Your task to perform on an android device: turn smart compose on in the gmail app Image 0: 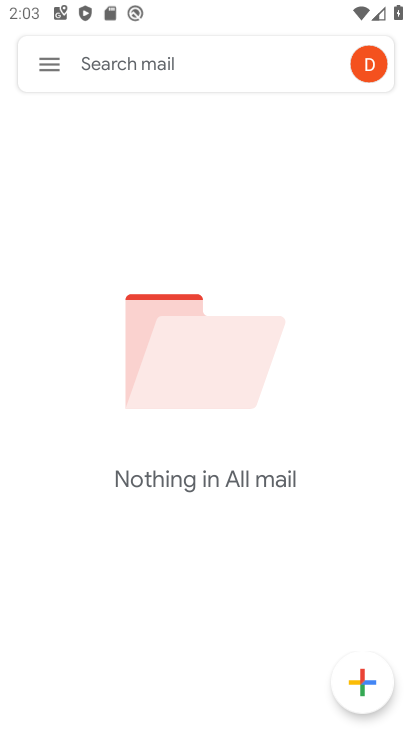
Step 0: press home button
Your task to perform on an android device: turn smart compose on in the gmail app Image 1: 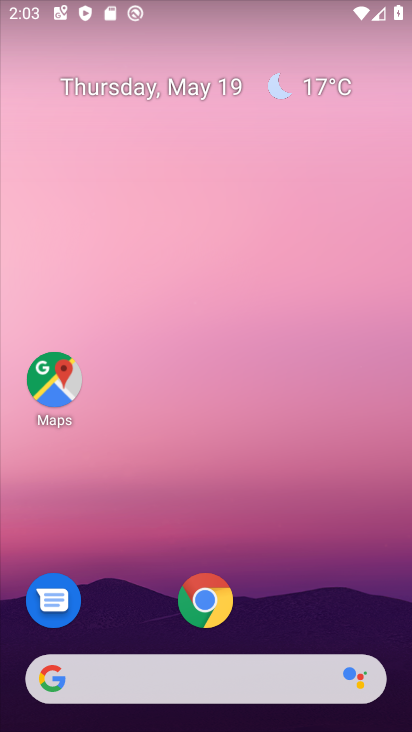
Step 1: drag from (328, 622) to (295, 202)
Your task to perform on an android device: turn smart compose on in the gmail app Image 2: 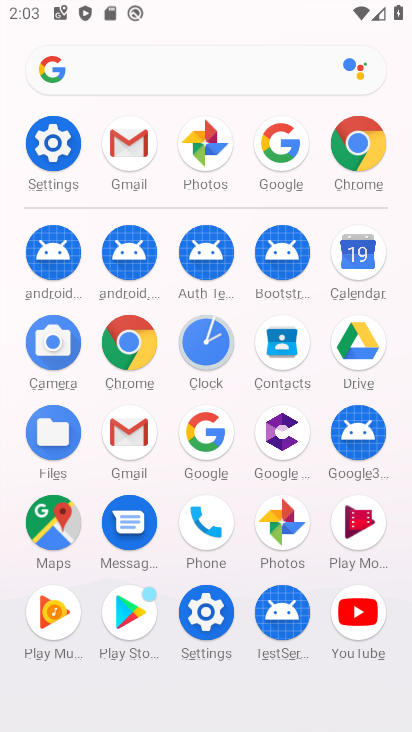
Step 2: click (136, 438)
Your task to perform on an android device: turn smart compose on in the gmail app Image 3: 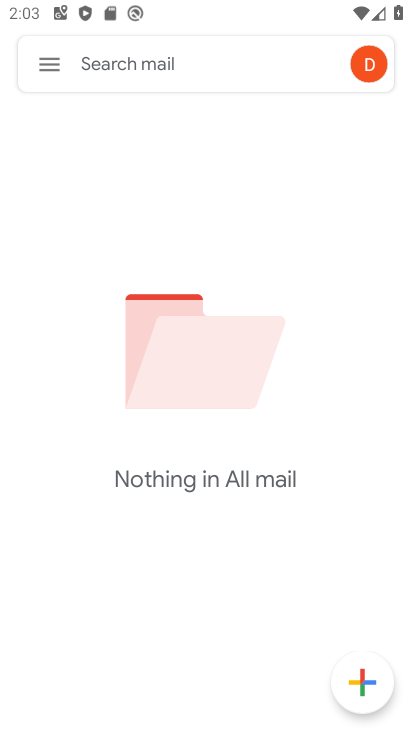
Step 3: click (48, 81)
Your task to perform on an android device: turn smart compose on in the gmail app Image 4: 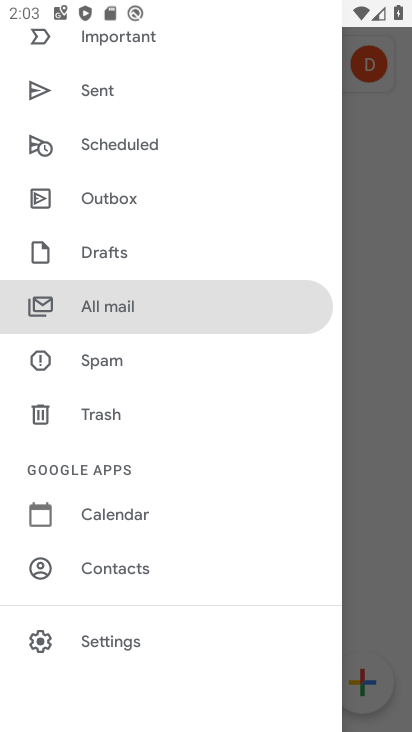
Step 4: click (128, 646)
Your task to perform on an android device: turn smart compose on in the gmail app Image 5: 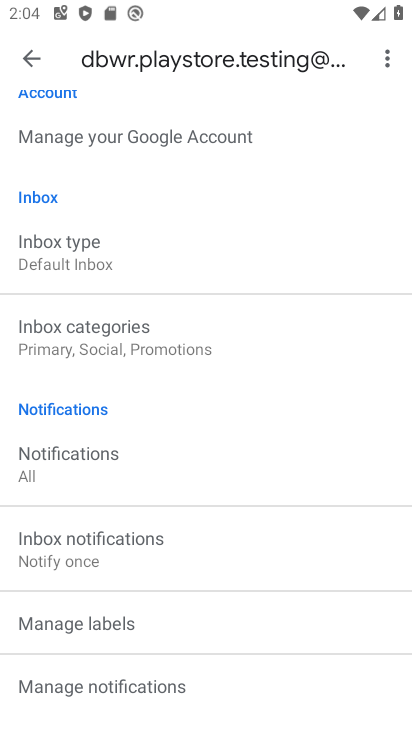
Step 5: task complete